Your task to perform on an android device: toggle priority inbox in the gmail app Image 0: 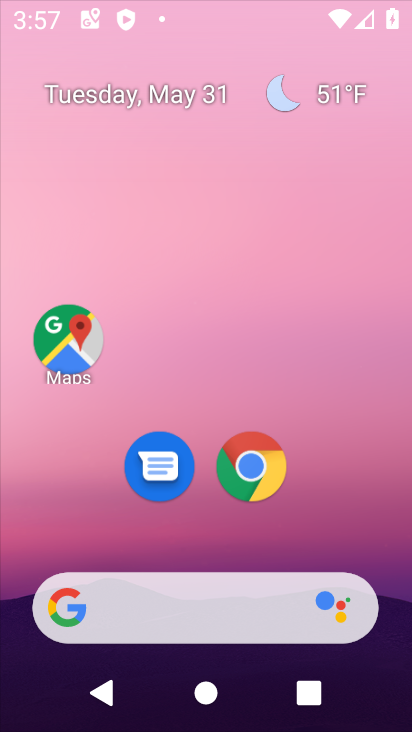
Step 0: press home button
Your task to perform on an android device: toggle priority inbox in the gmail app Image 1: 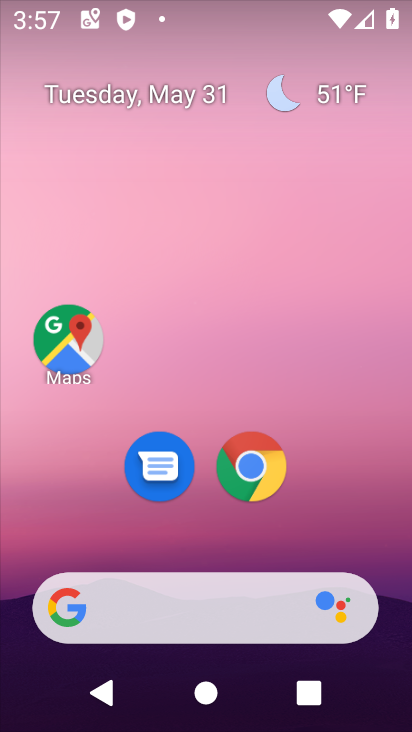
Step 1: drag from (210, 552) to (205, 81)
Your task to perform on an android device: toggle priority inbox in the gmail app Image 2: 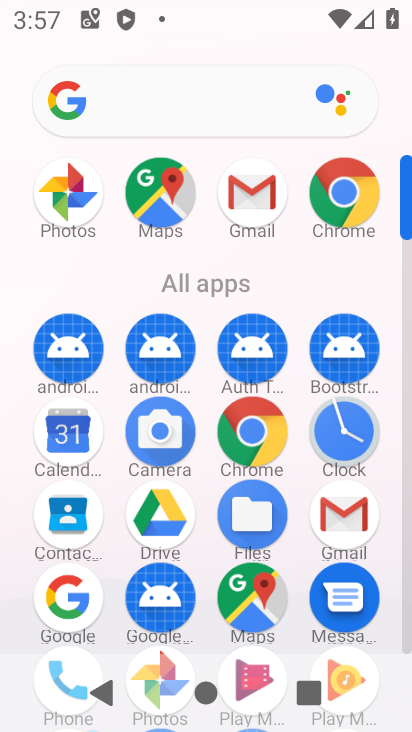
Step 2: click (339, 505)
Your task to perform on an android device: toggle priority inbox in the gmail app Image 3: 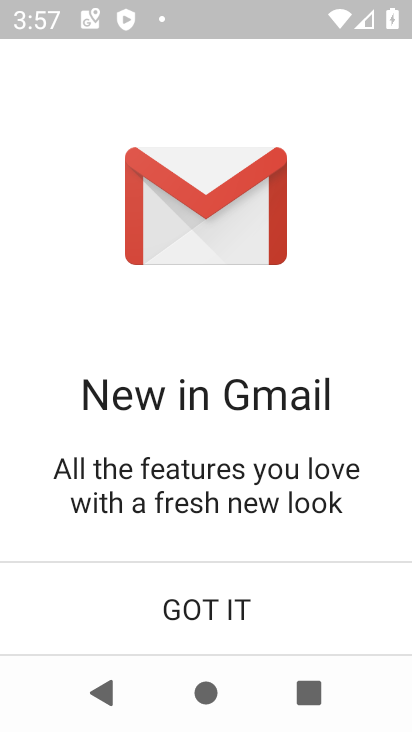
Step 3: click (219, 623)
Your task to perform on an android device: toggle priority inbox in the gmail app Image 4: 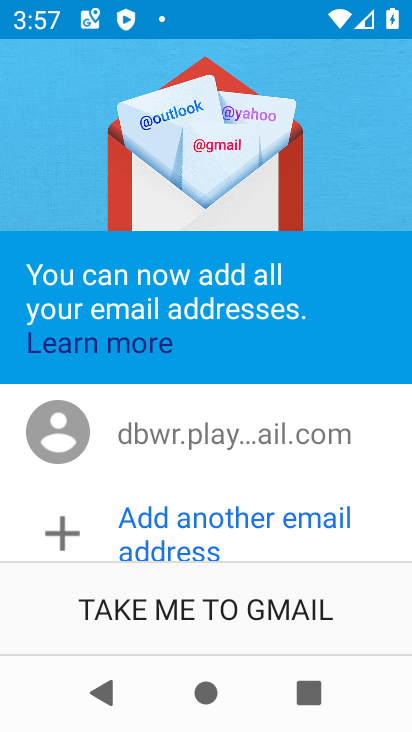
Step 4: click (196, 629)
Your task to perform on an android device: toggle priority inbox in the gmail app Image 5: 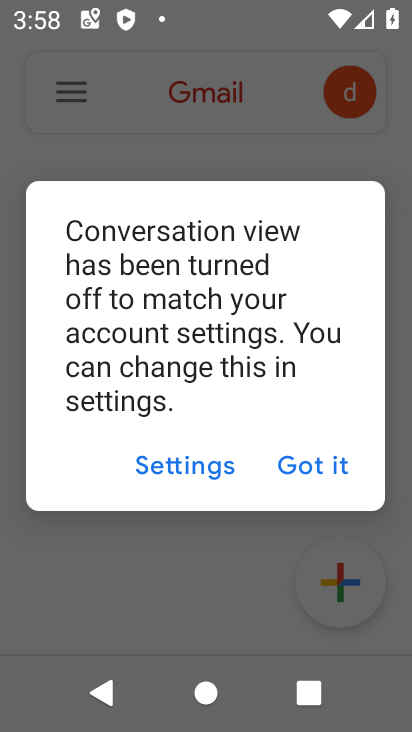
Step 5: click (316, 469)
Your task to perform on an android device: toggle priority inbox in the gmail app Image 6: 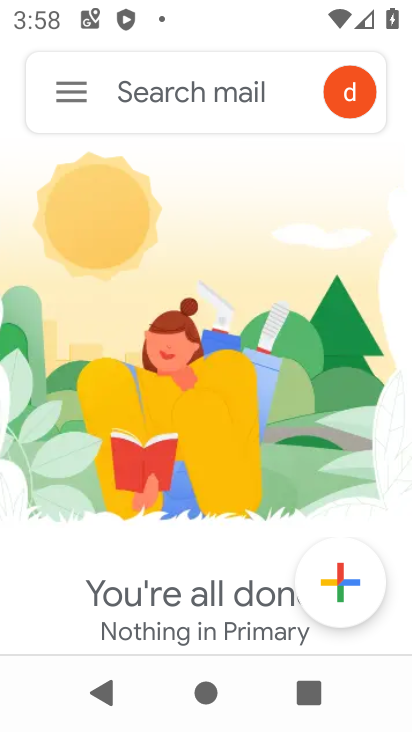
Step 6: click (73, 93)
Your task to perform on an android device: toggle priority inbox in the gmail app Image 7: 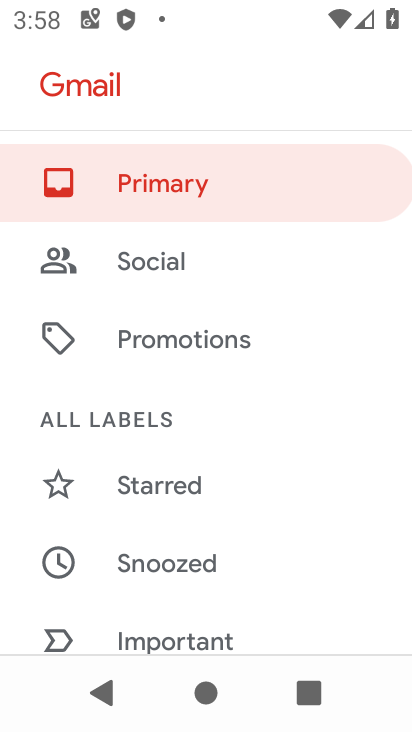
Step 7: drag from (252, 607) to (251, 39)
Your task to perform on an android device: toggle priority inbox in the gmail app Image 8: 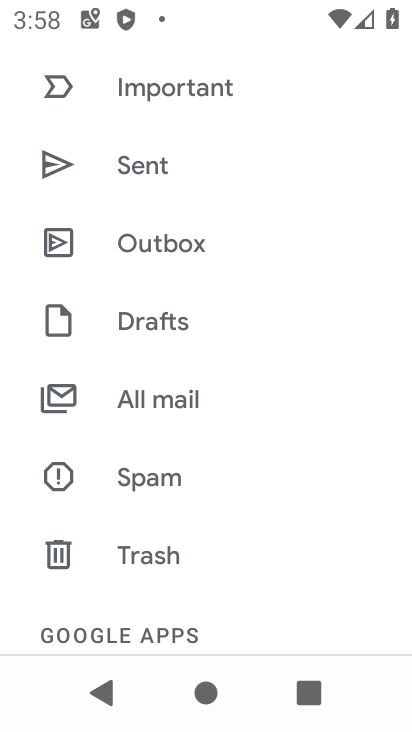
Step 8: drag from (229, 613) to (242, 69)
Your task to perform on an android device: toggle priority inbox in the gmail app Image 9: 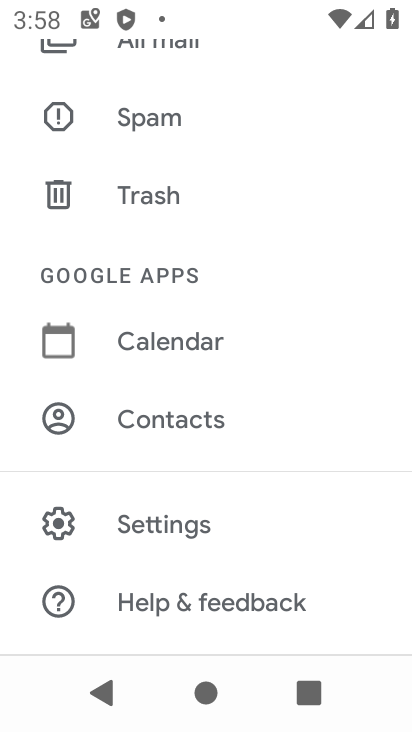
Step 9: click (230, 521)
Your task to perform on an android device: toggle priority inbox in the gmail app Image 10: 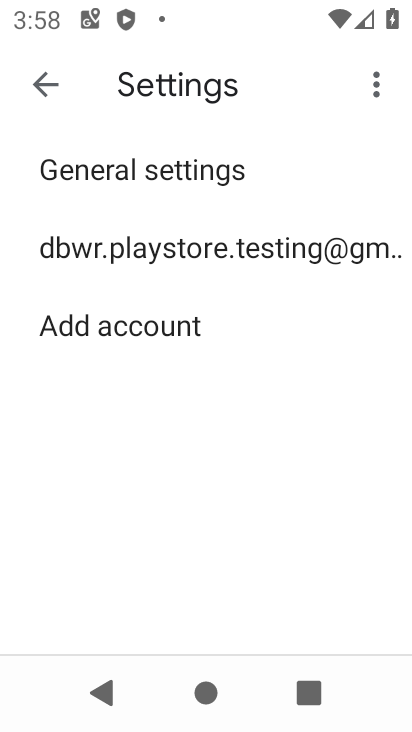
Step 10: click (245, 250)
Your task to perform on an android device: toggle priority inbox in the gmail app Image 11: 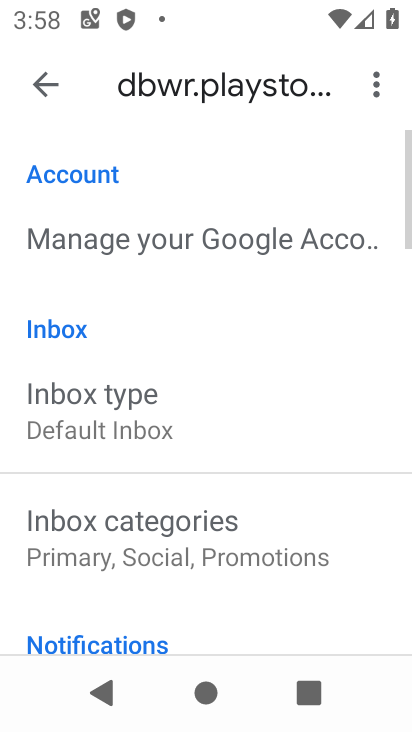
Step 11: click (200, 406)
Your task to perform on an android device: toggle priority inbox in the gmail app Image 12: 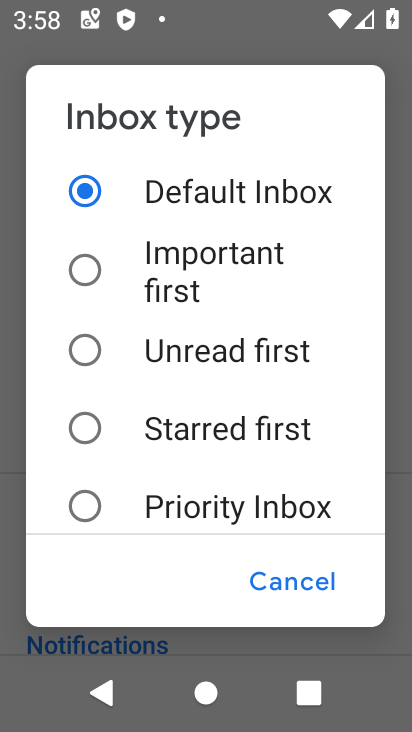
Step 12: click (75, 511)
Your task to perform on an android device: toggle priority inbox in the gmail app Image 13: 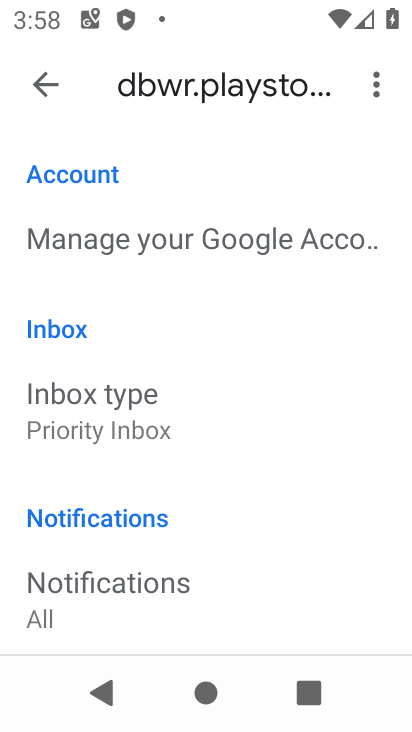
Step 13: task complete